Your task to perform on an android device: Open battery settings Image 0: 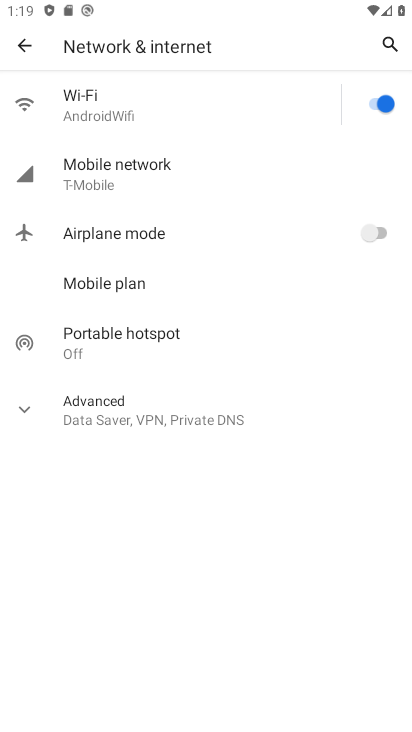
Step 0: press home button
Your task to perform on an android device: Open battery settings Image 1: 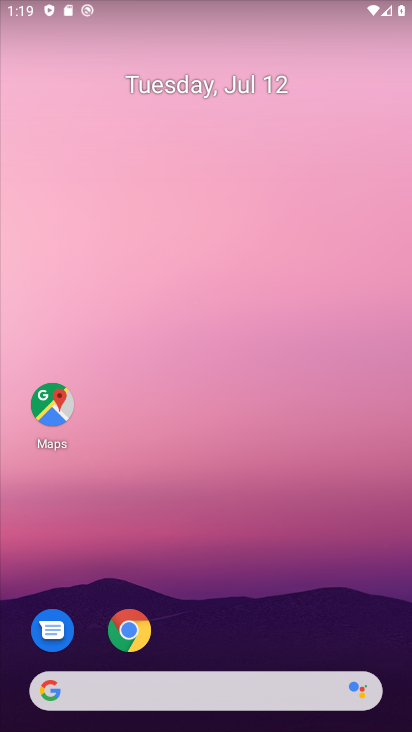
Step 1: drag from (388, 643) to (323, 83)
Your task to perform on an android device: Open battery settings Image 2: 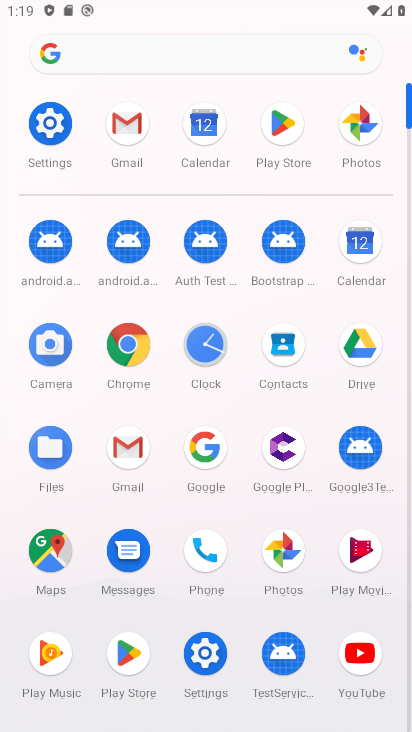
Step 2: click (203, 654)
Your task to perform on an android device: Open battery settings Image 3: 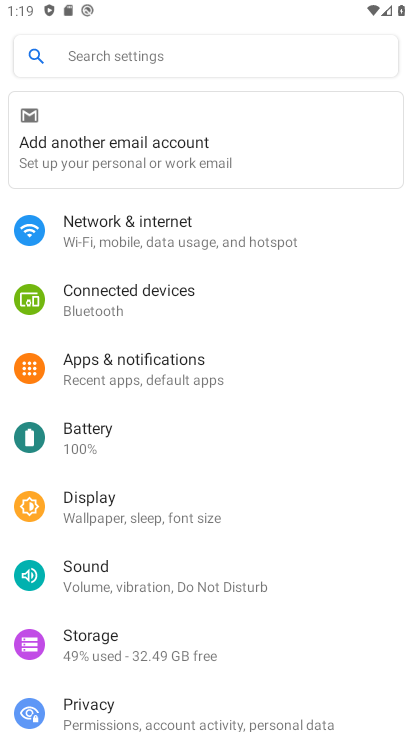
Step 3: click (87, 433)
Your task to perform on an android device: Open battery settings Image 4: 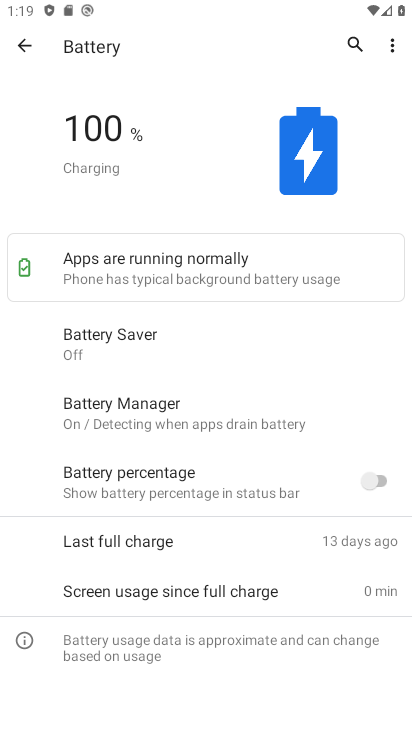
Step 4: task complete